Your task to perform on an android device: manage bookmarks in the chrome app Image 0: 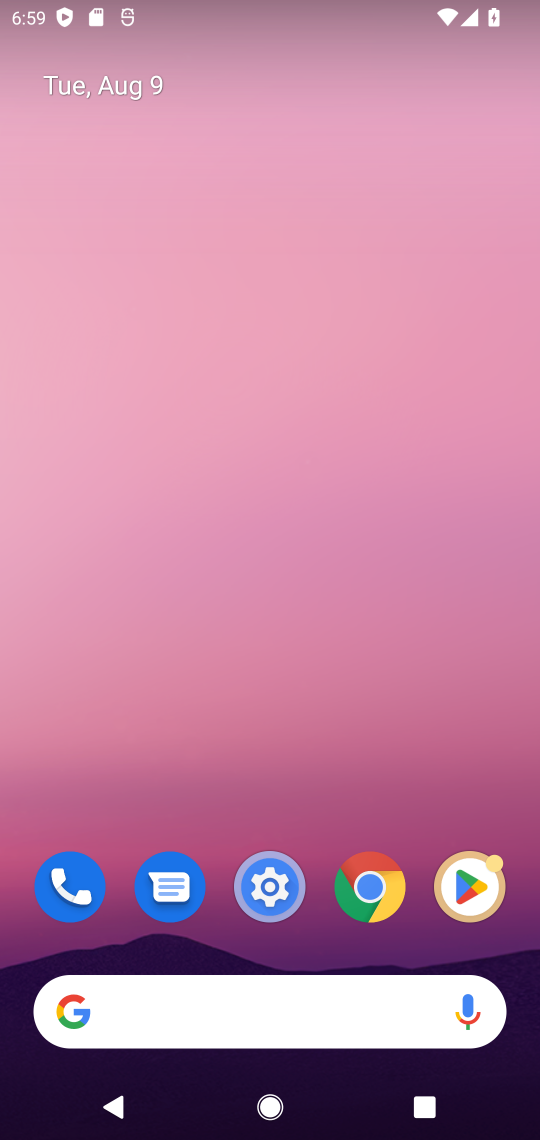
Step 0: click (305, 299)
Your task to perform on an android device: manage bookmarks in the chrome app Image 1: 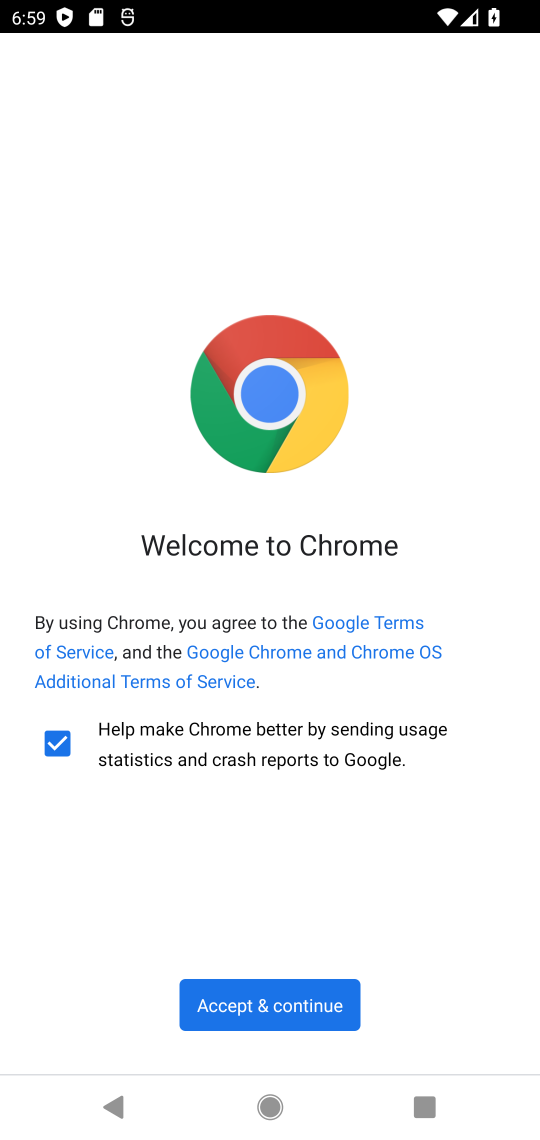
Step 1: click (317, 982)
Your task to perform on an android device: manage bookmarks in the chrome app Image 2: 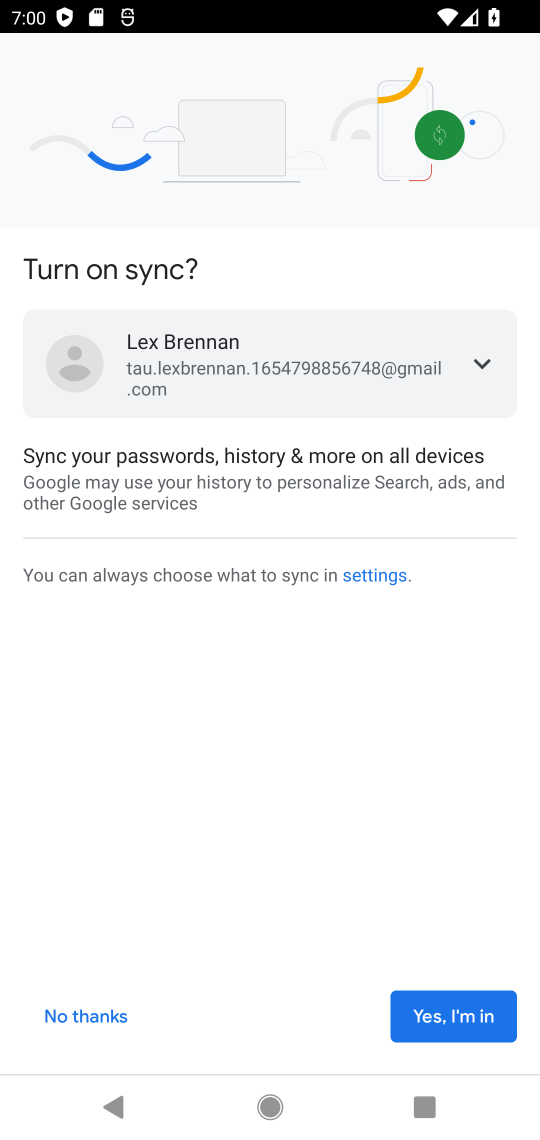
Step 2: click (67, 1010)
Your task to perform on an android device: manage bookmarks in the chrome app Image 3: 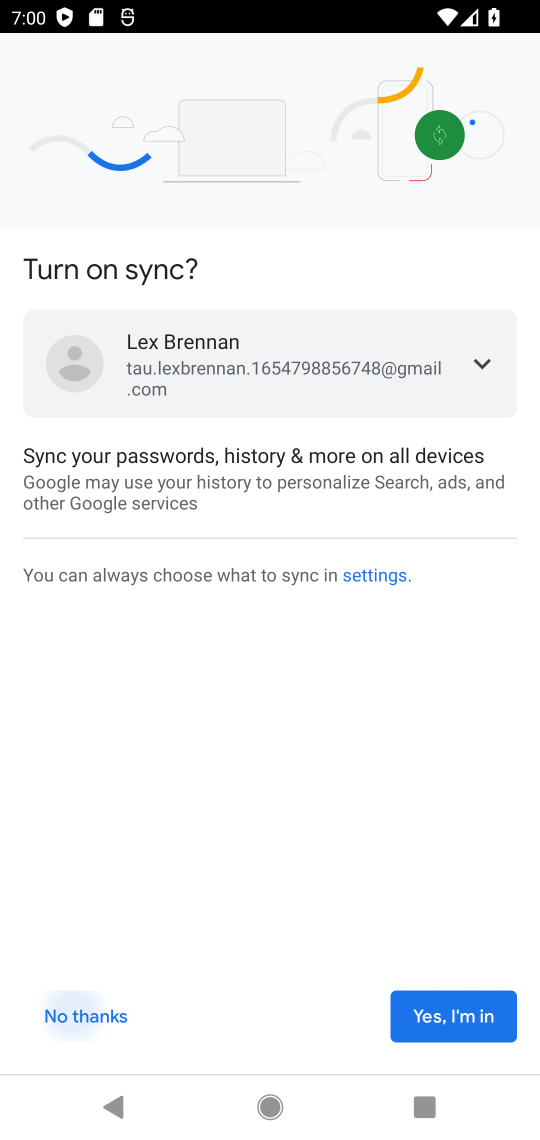
Step 3: click (71, 1002)
Your task to perform on an android device: manage bookmarks in the chrome app Image 4: 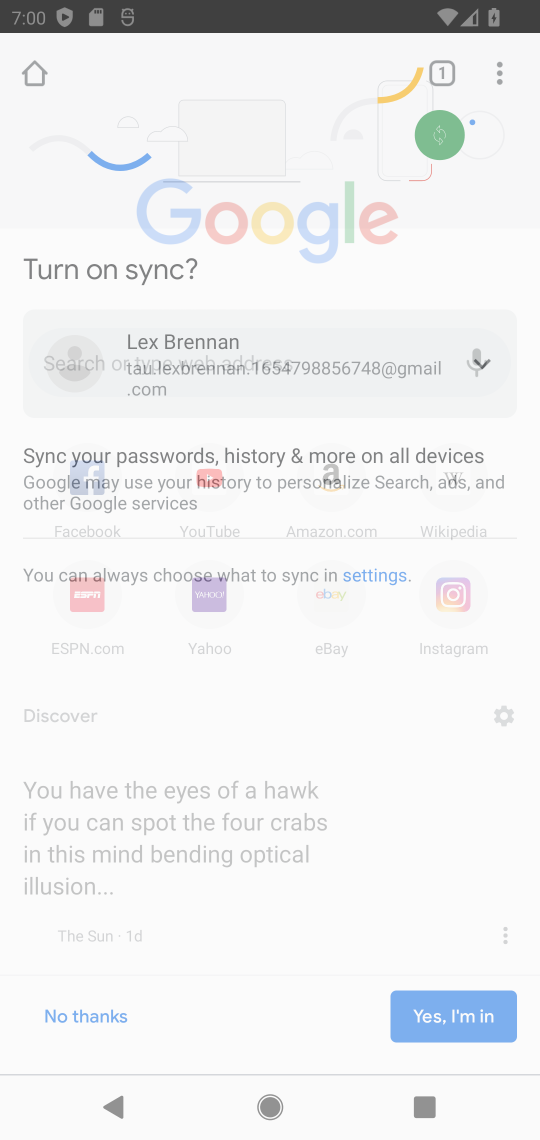
Step 4: click (81, 981)
Your task to perform on an android device: manage bookmarks in the chrome app Image 5: 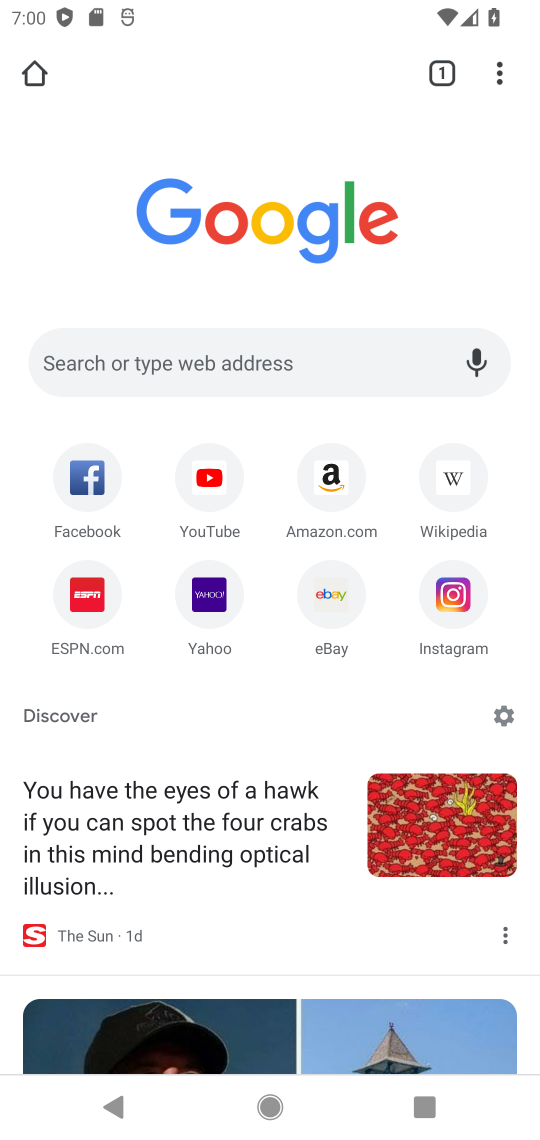
Step 5: drag from (501, 75) to (271, 438)
Your task to perform on an android device: manage bookmarks in the chrome app Image 6: 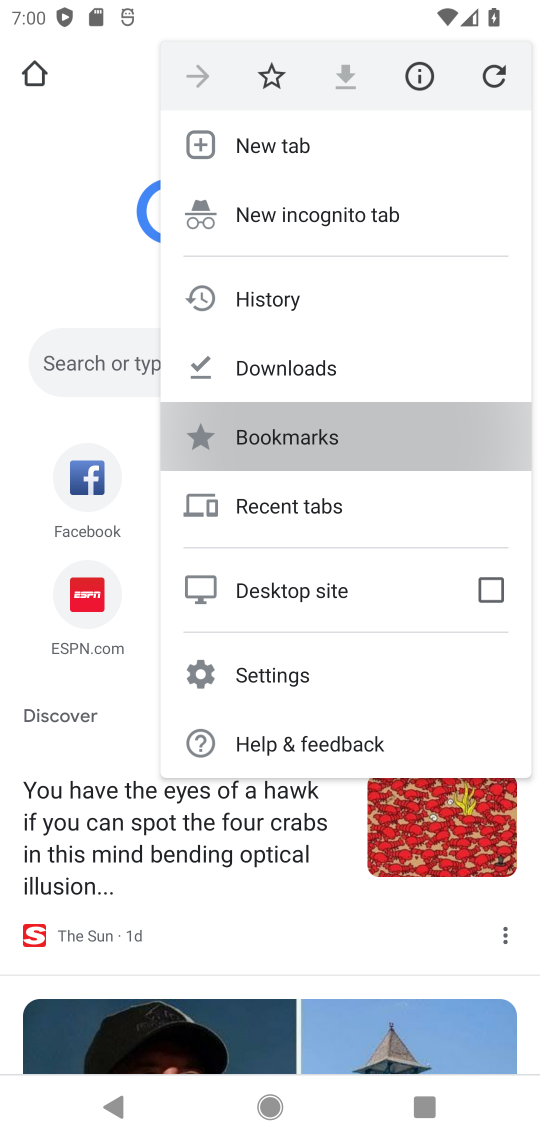
Step 6: click (271, 434)
Your task to perform on an android device: manage bookmarks in the chrome app Image 7: 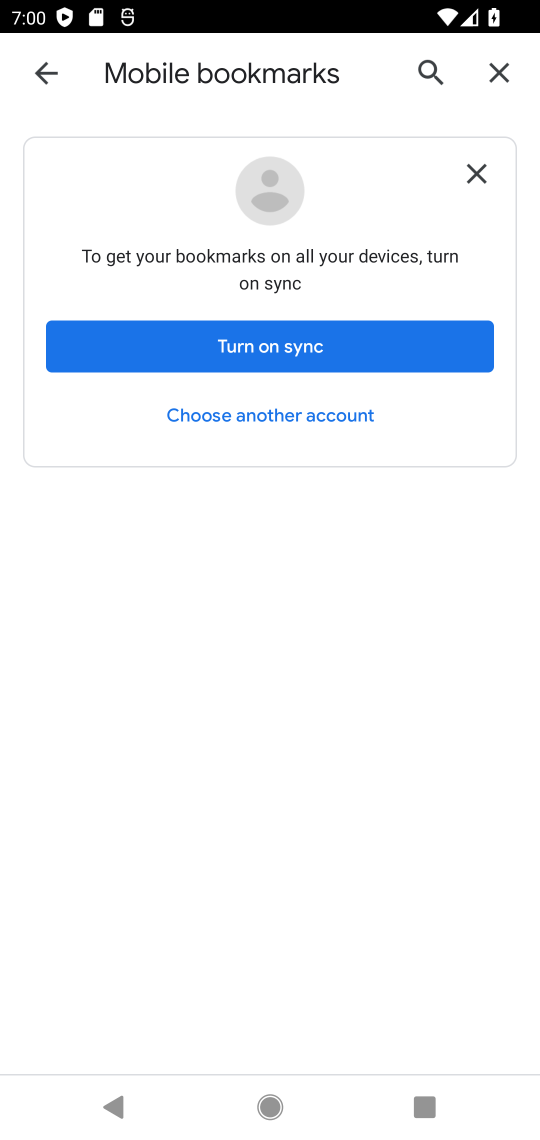
Step 7: click (473, 179)
Your task to perform on an android device: manage bookmarks in the chrome app Image 8: 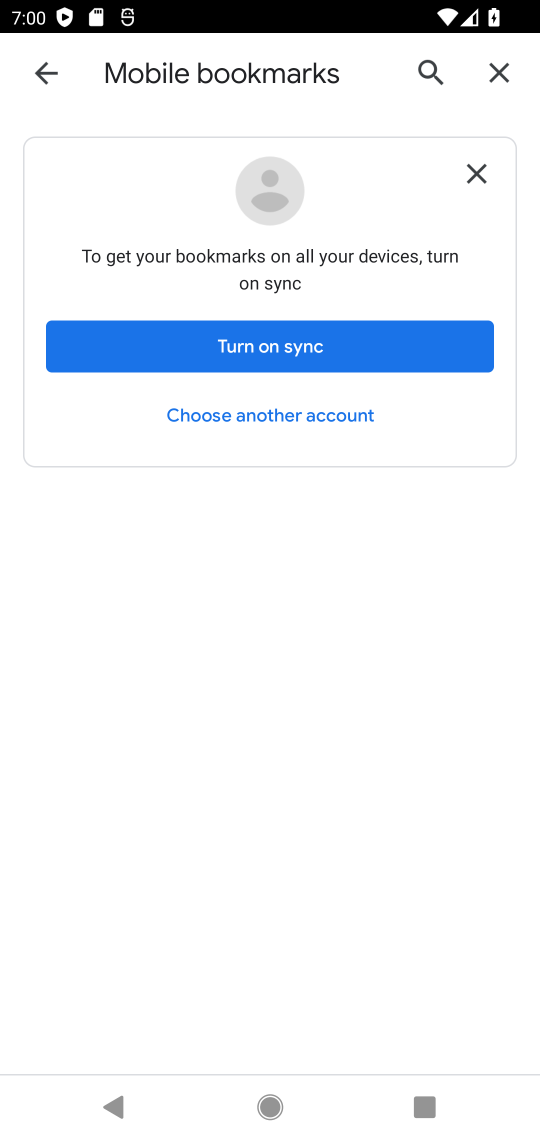
Step 8: click (473, 166)
Your task to perform on an android device: manage bookmarks in the chrome app Image 9: 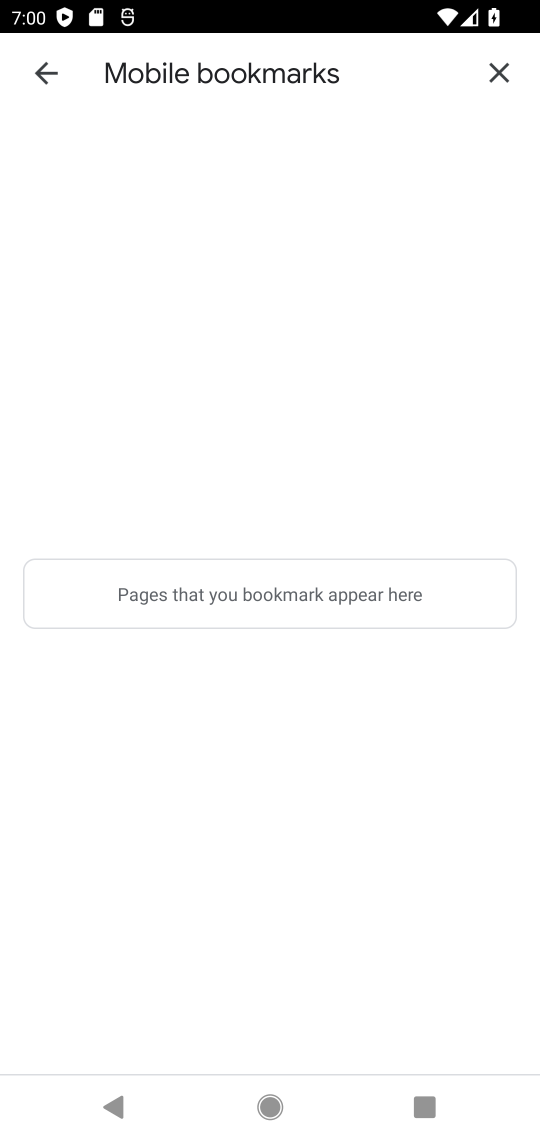
Step 9: click (488, 56)
Your task to perform on an android device: manage bookmarks in the chrome app Image 10: 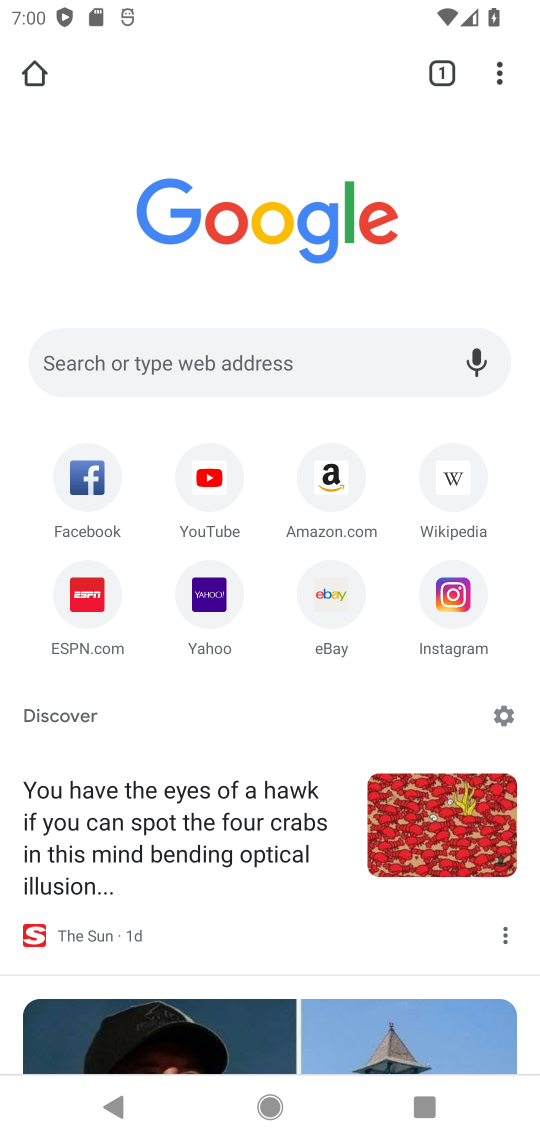
Step 10: task complete